Your task to perform on an android device: Open the map Image 0: 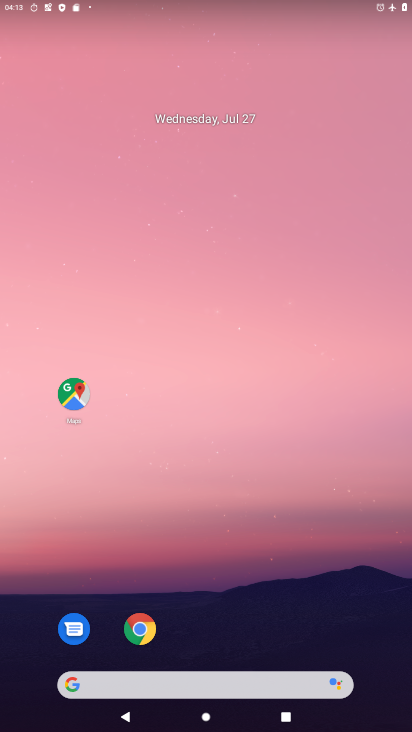
Step 0: drag from (331, 568) to (395, 42)
Your task to perform on an android device: Open the map Image 1: 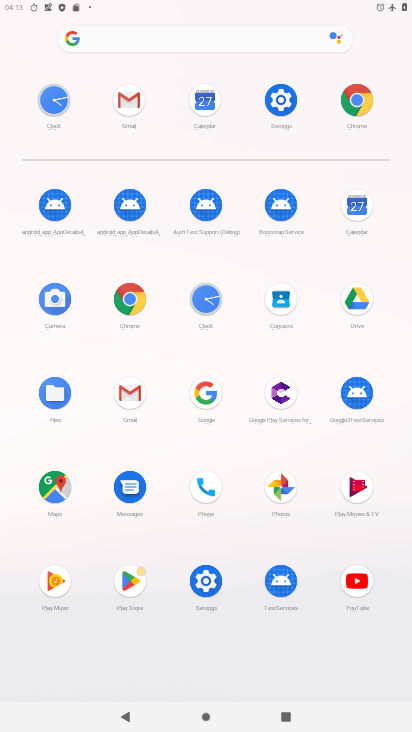
Step 1: click (58, 489)
Your task to perform on an android device: Open the map Image 2: 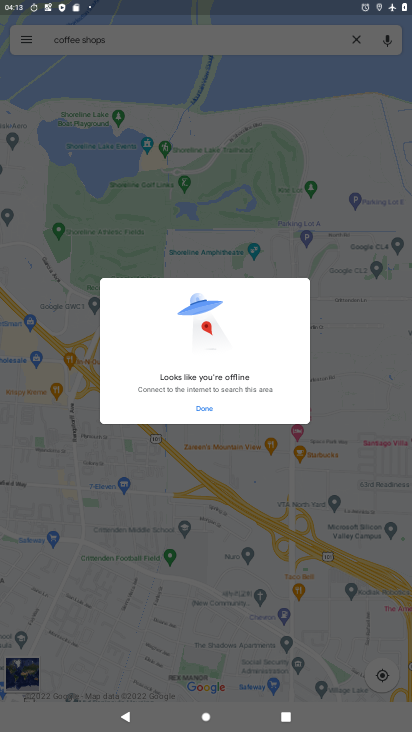
Step 2: click (223, 410)
Your task to perform on an android device: Open the map Image 3: 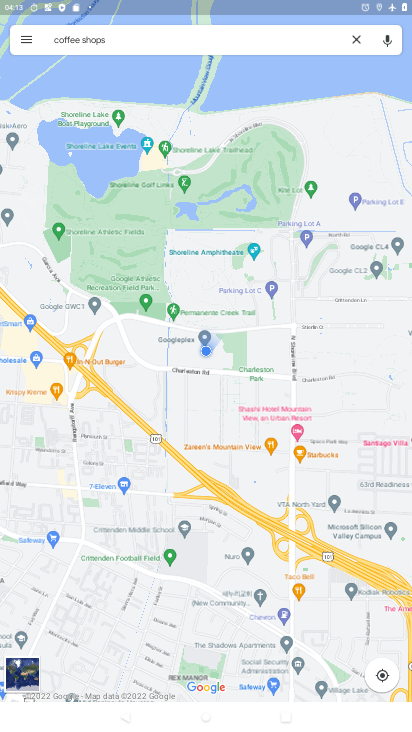
Step 3: task complete